Your task to perform on an android device: turn off priority inbox in the gmail app Image 0: 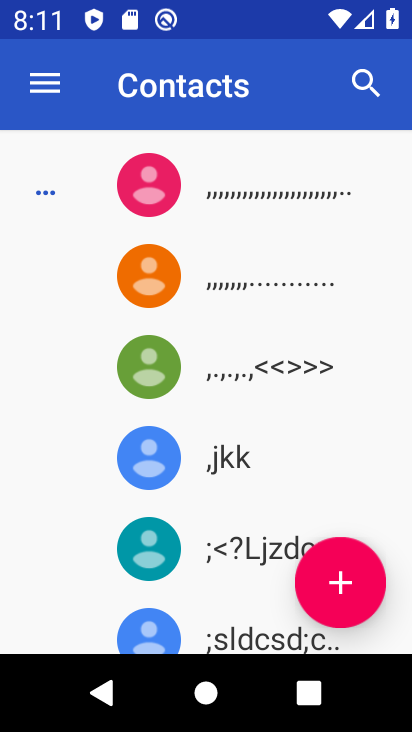
Step 0: drag from (250, 501) to (407, 379)
Your task to perform on an android device: turn off priority inbox in the gmail app Image 1: 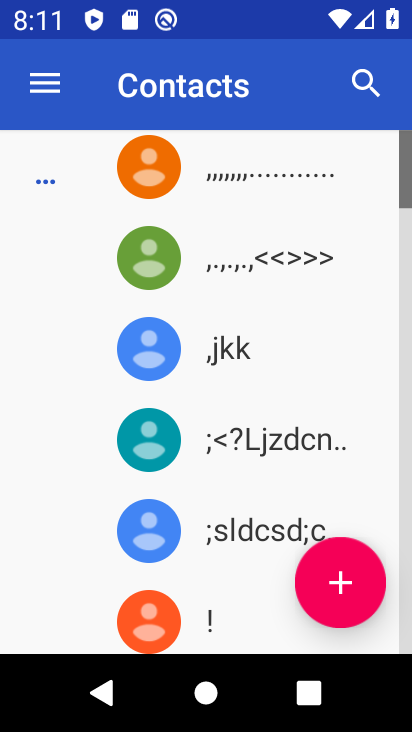
Step 1: press home button
Your task to perform on an android device: turn off priority inbox in the gmail app Image 2: 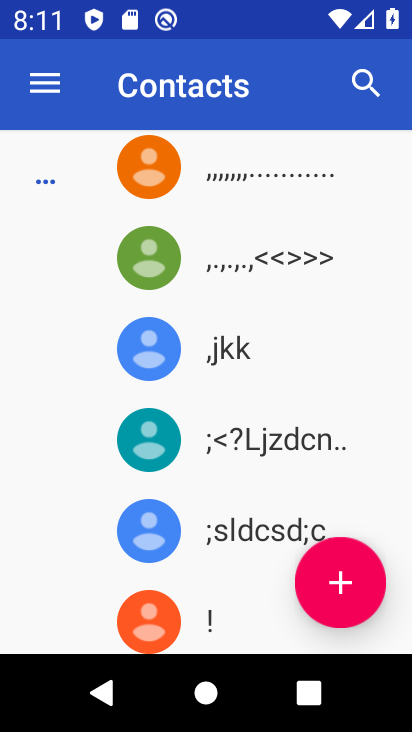
Step 2: drag from (407, 379) to (391, 291)
Your task to perform on an android device: turn off priority inbox in the gmail app Image 3: 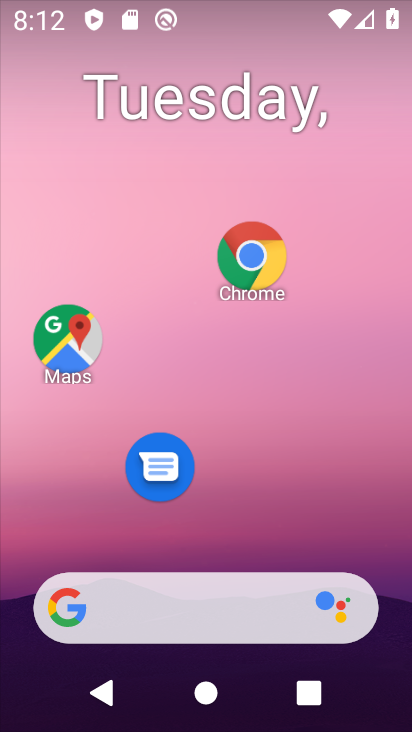
Step 3: drag from (253, 462) to (232, 123)
Your task to perform on an android device: turn off priority inbox in the gmail app Image 4: 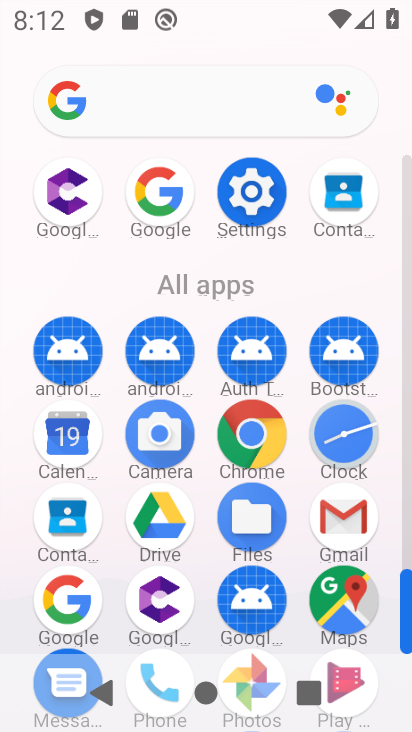
Step 4: click (340, 526)
Your task to perform on an android device: turn off priority inbox in the gmail app Image 5: 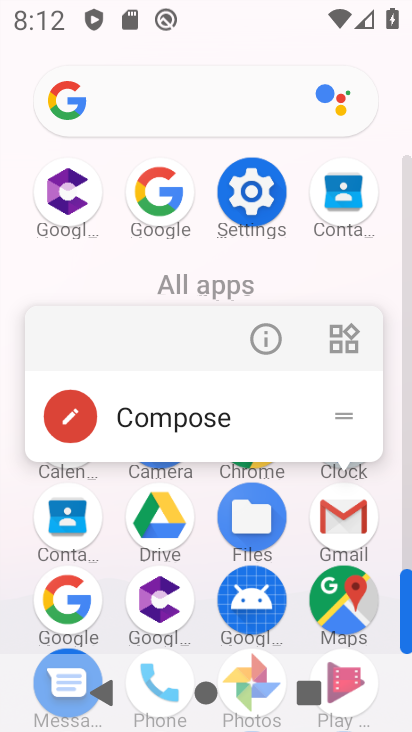
Step 5: click (336, 516)
Your task to perform on an android device: turn off priority inbox in the gmail app Image 6: 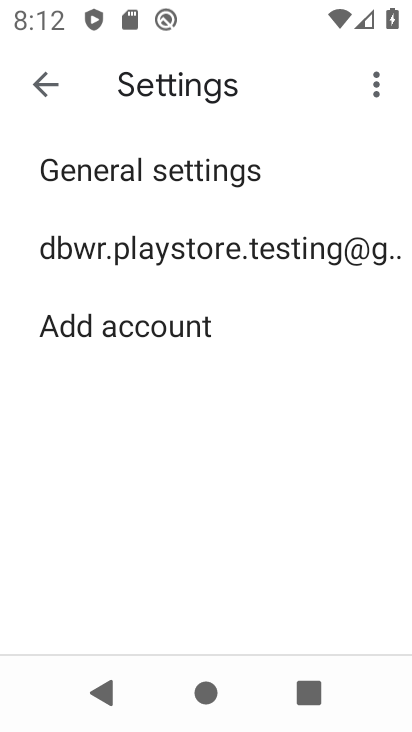
Step 6: click (116, 252)
Your task to perform on an android device: turn off priority inbox in the gmail app Image 7: 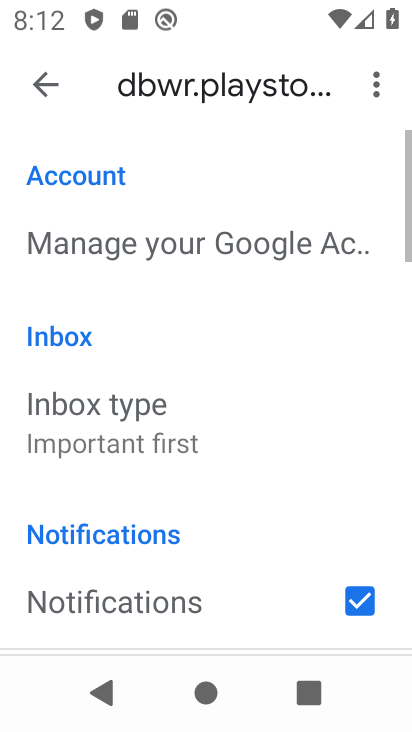
Step 7: drag from (244, 530) to (241, 428)
Your task to perform on an android device: turn off priority inbox in the gmail app Image 8: 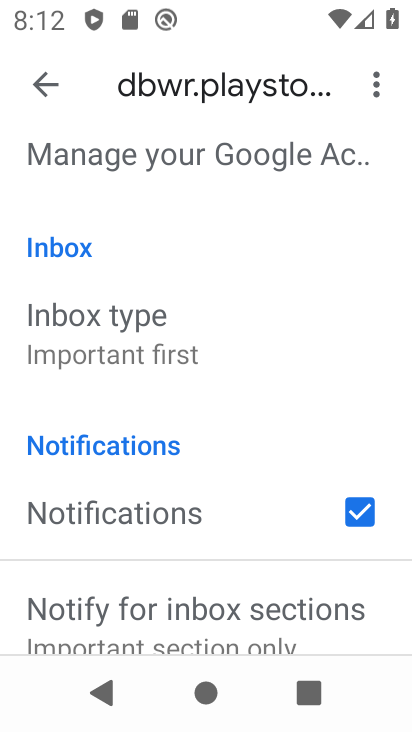
Step 8: click (125, 334)
Your task to perform on an android device: turn off priority inbox in the gmail app Image 9: 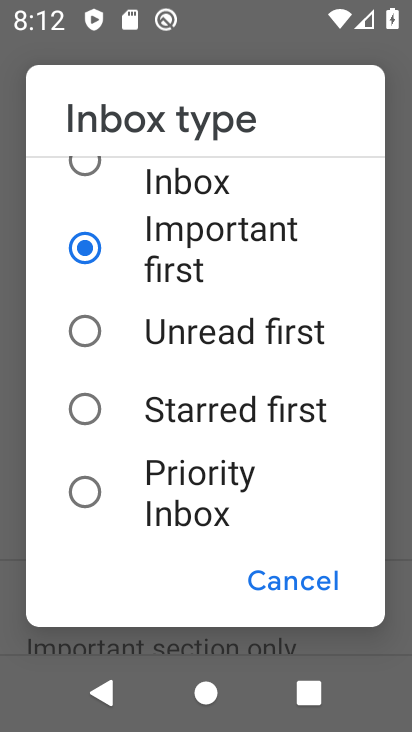
Step 9: task complete